Your task to perform on an android device: turn on the 24-hour format for clock Image 0: 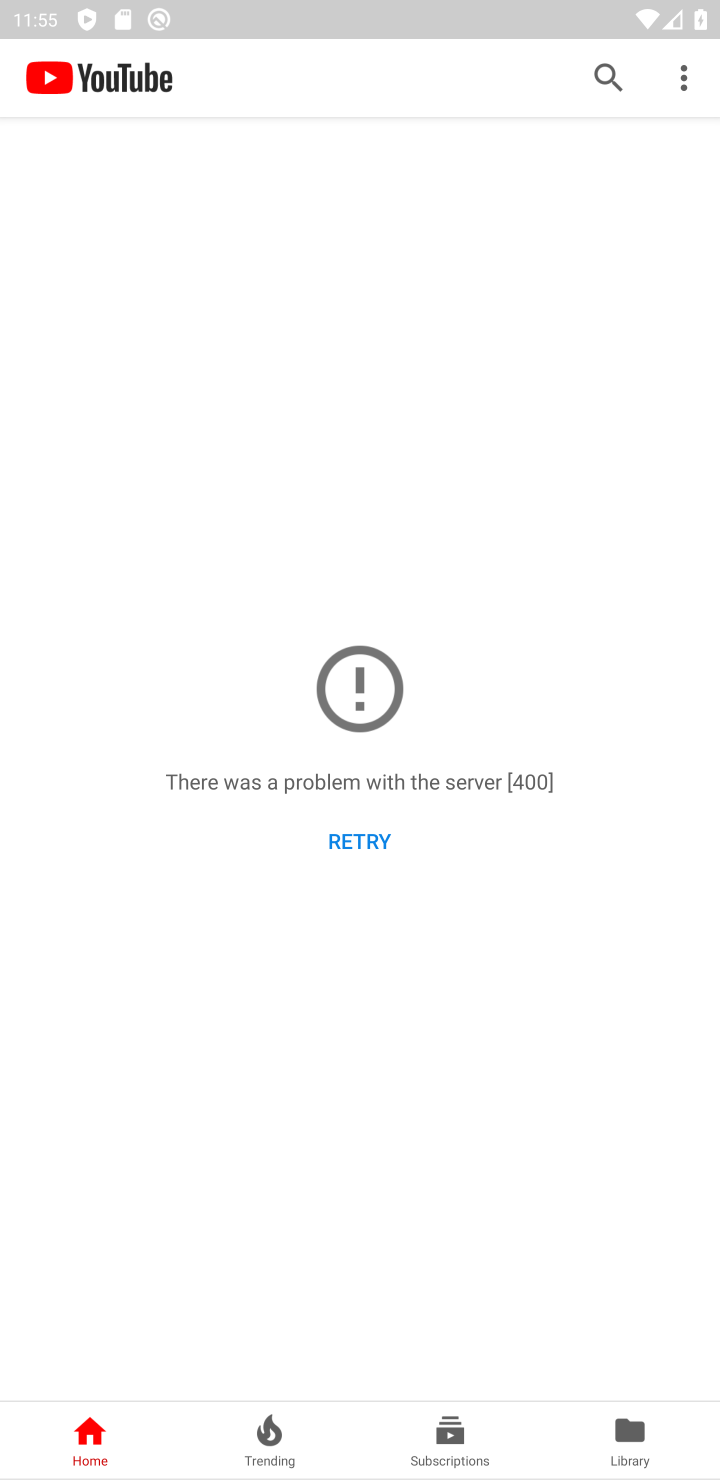
Step 0: press home button
Your task to perform on an android device: turn on the 24-hour format for clock Image 1: 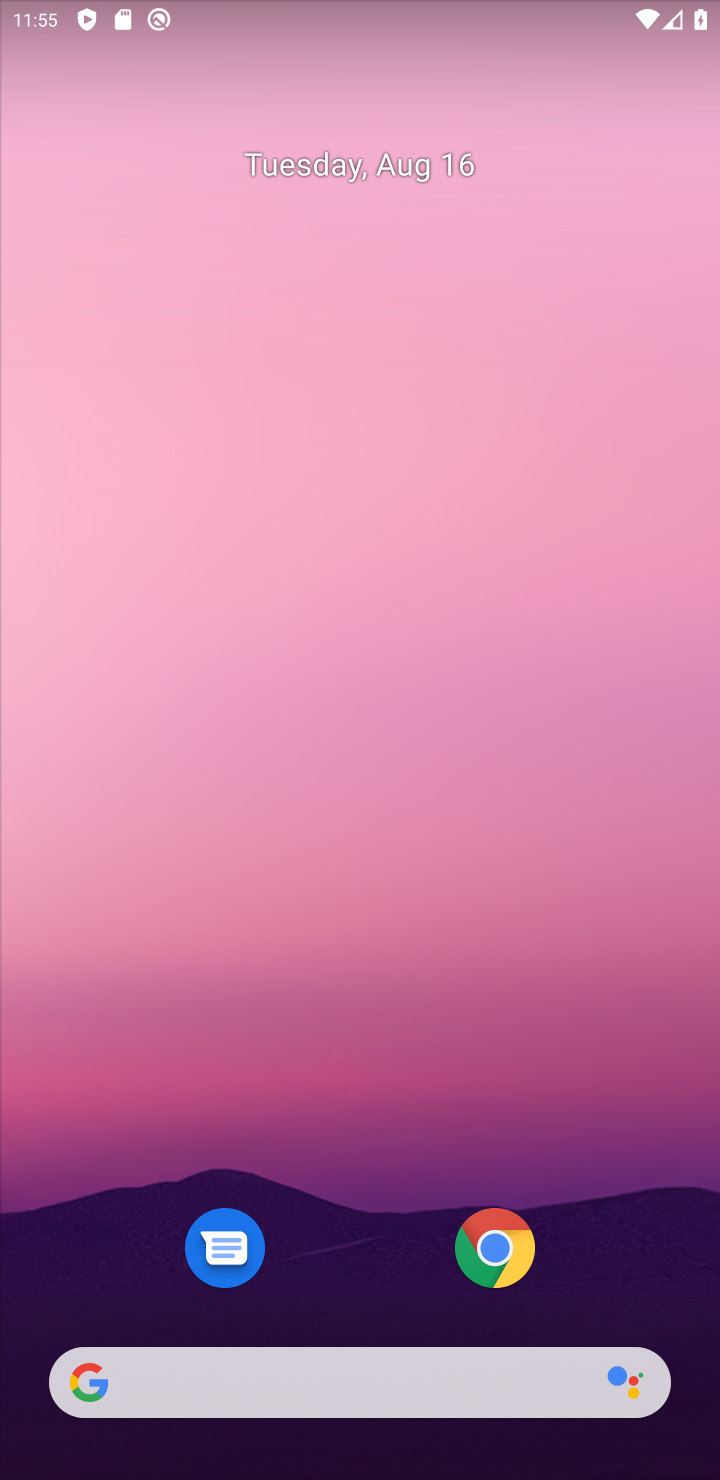
Step 1: drag from (418, 1017) to (408, 174)
Your task to perform on an android device: turn on the 24-hour format for clock Image 2: 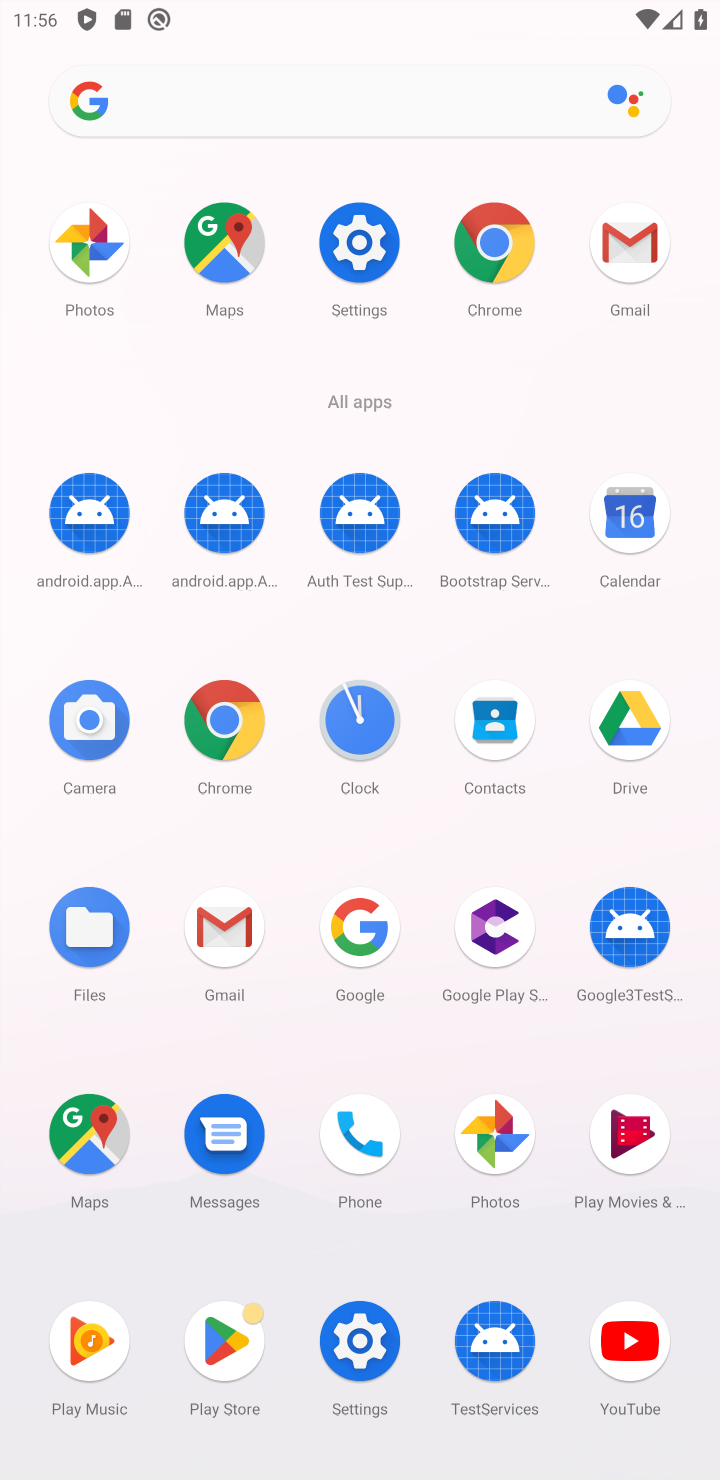
Step 2: click (627, 1345)
Your task to perform on an android device: turn on the 24-hour format for clock Image 3: 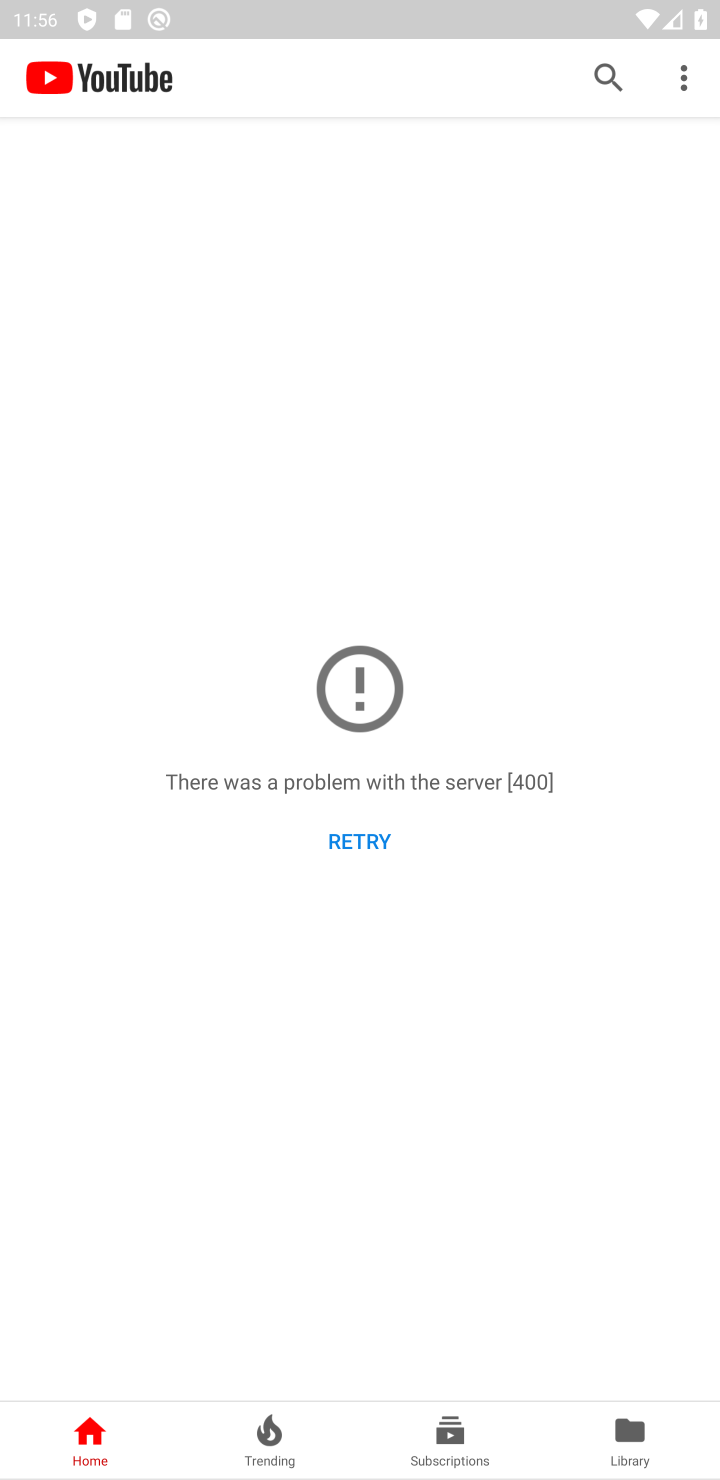
Step 3: task complete